Your task to perform on an android device: toggle javascript in the chrome app Image 0: 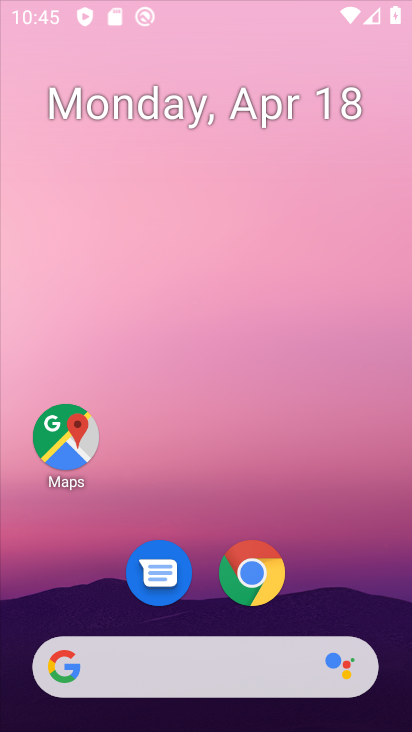
Step 0: click (276, 75)
Your task to perform on an android device: toggle javascript in the chrome app Image 1: 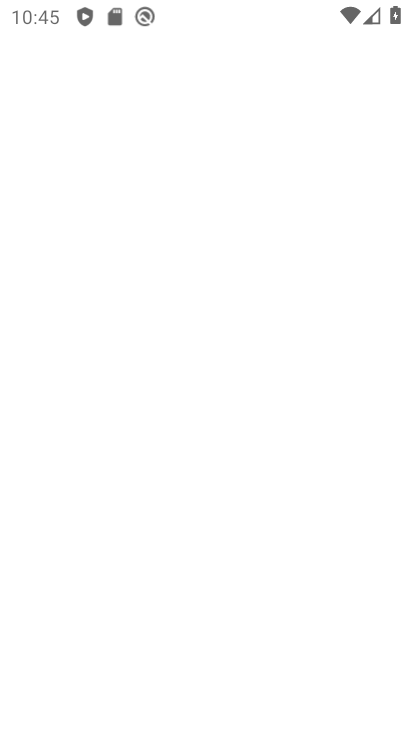
Step 1: press home button
Your task to perform on an android device: toggle javascript in the chrome app Image 2: 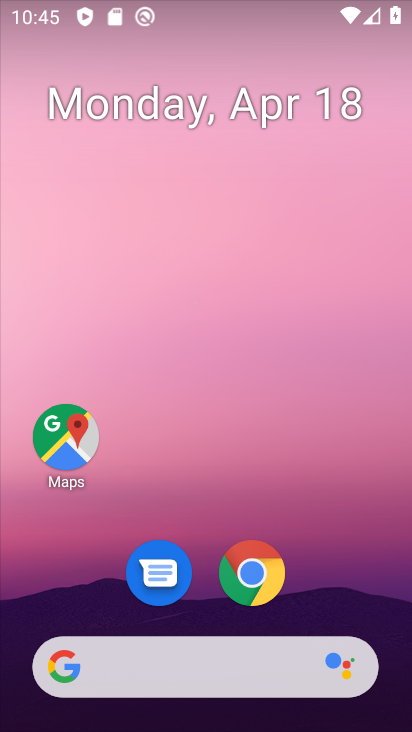
Step 2: click (264, 595)
Your task to perform on an android device: toggle javascript in the chrome app Image 3: 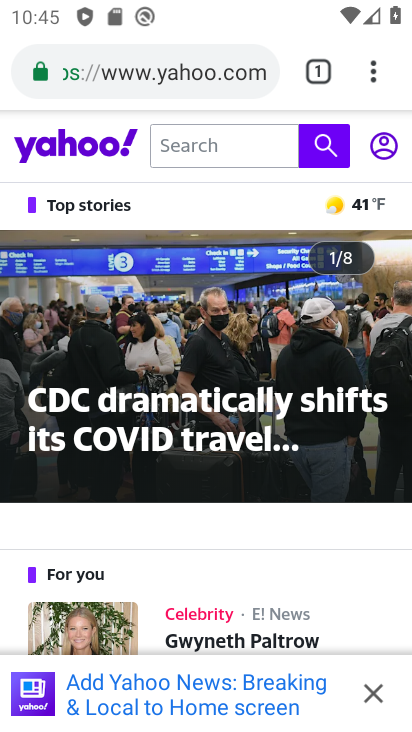
Step 3: click (371, 68)
Your task to perform on an android device: toggle javascript in the chrome app Image 4: 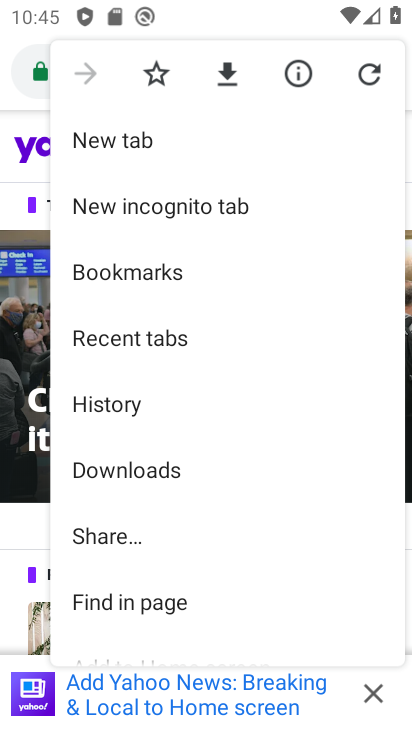
Step 4: drag from (168, 539) to (186, 184)
Your task to perform on an android device: toggle javascript in the chrome app Image 5: 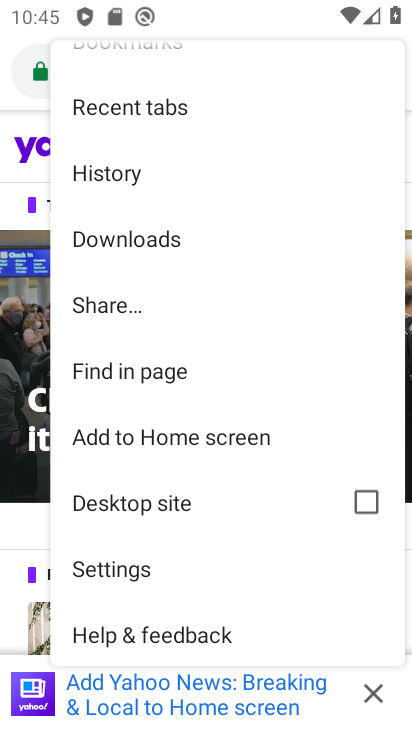
Step 5: click (128, 573)
Your task to perform on an android device: toggle javascript in the chrome app Image 6: 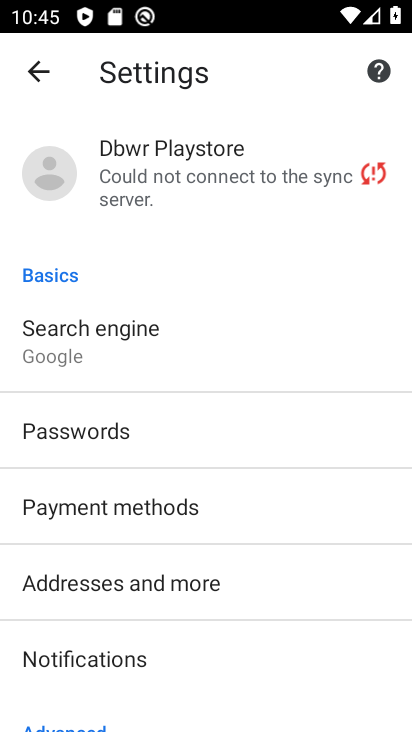
Step 6: drag from (117, 672) to (96, 262)
Your task to perform on an android device: toggle javascript in the chrome app Image 7: 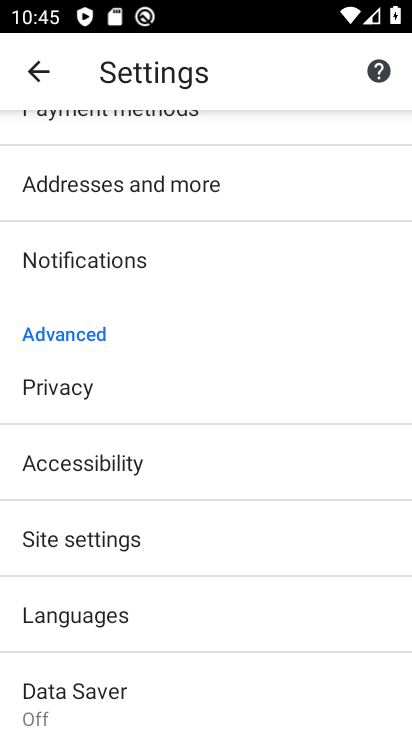
Step 7: click (70, 542)
Your task to perform on an android device: toggle javascript in the chrome app Image 8: 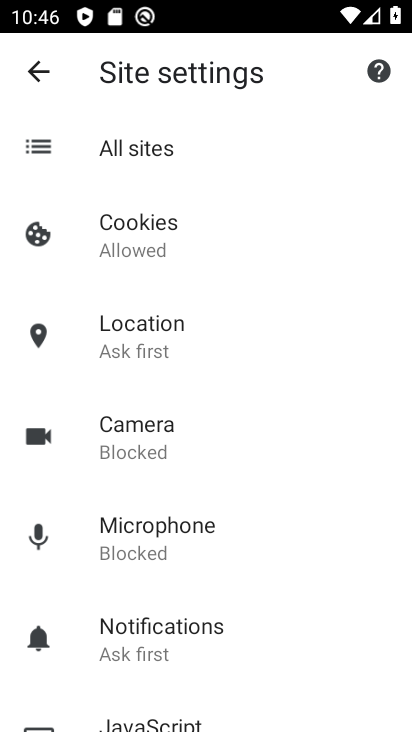
Step 8: drag from (152, 612) to (144, 297)
Your task to perform on an android device: toggle javascript in the chrome app Image 9: 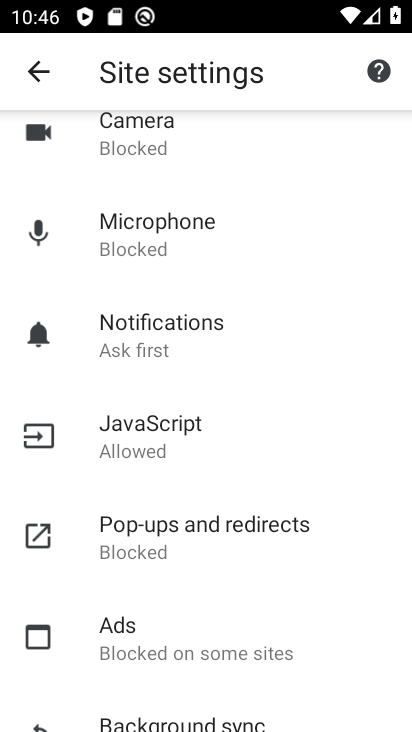
Step 9: click (147, 428)
Your task to perform on an android device: toggle javascript in the chrome app Image 10: 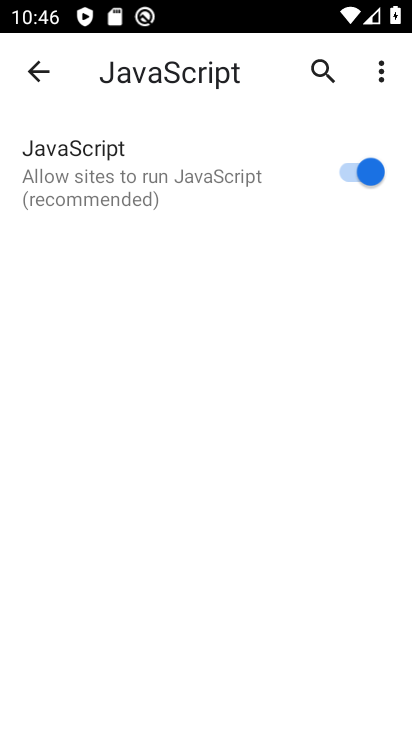
Step 10: click (378, 180)
Your task to perform on an android device: toggle javascript in the chrome app Image 11: 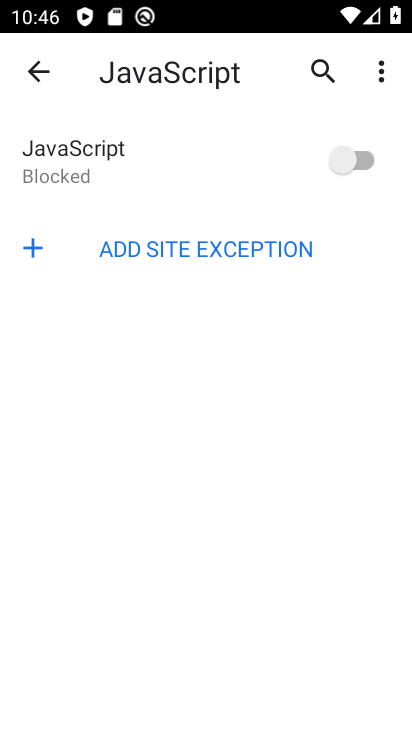
Step 11: task complete